Your task to perform on an android device: toggle notifications settings in the gmail app Image 0: 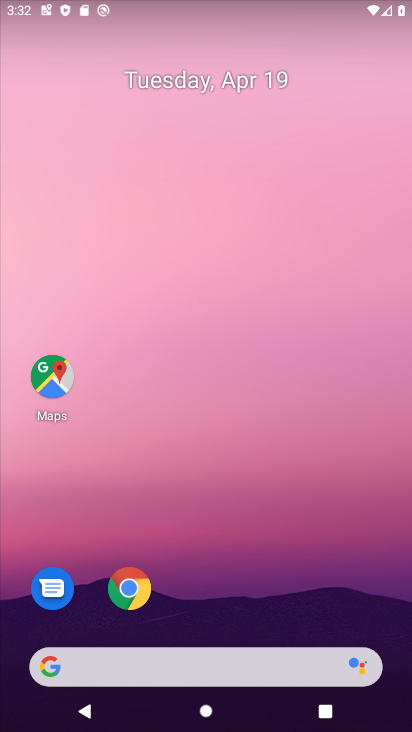
Step 0: drag from (242, 483) to (220, 109)
Your task to perform on an android device: toggle notifications settings in the gmail app Image 1: 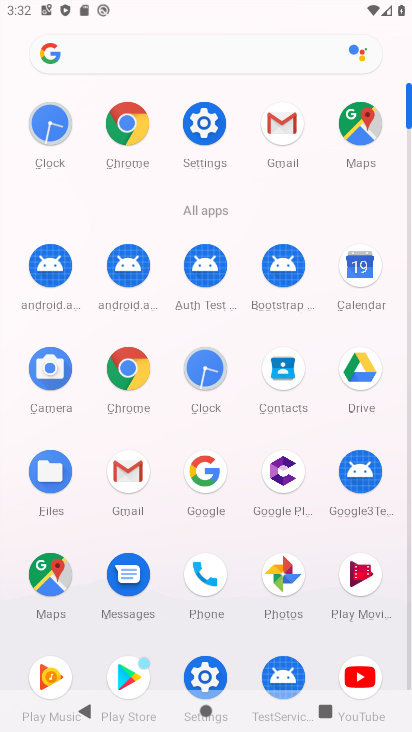
Step 1: click (285, 117)
Your task to perform on an android device: toggle notifications settings in the gmail app Image 2: 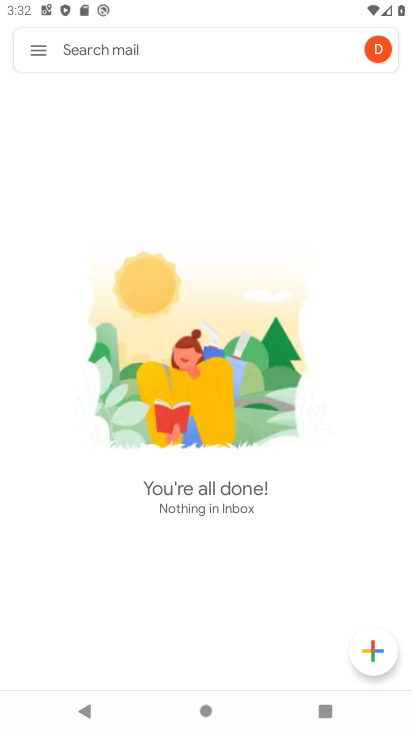
Step 2: click (38, 49)
Your task to perform on an android device: toggle notifications settings in the gmail app Image 3: 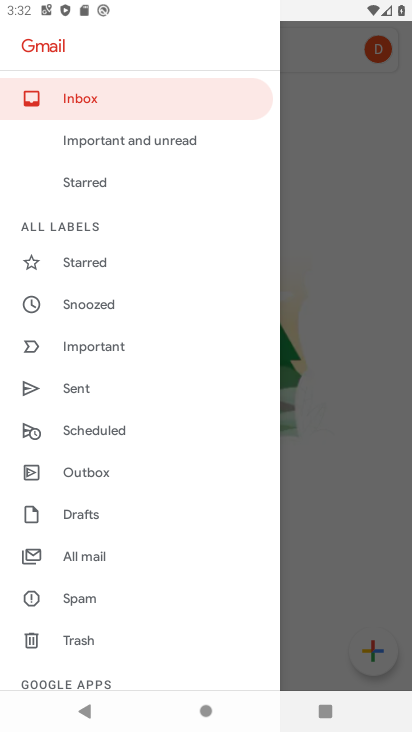
Step 3: drag from (143, 642) to (143, 262)
Your task to perform on an android device: toggle notifications settings in the gmail app Image 4: 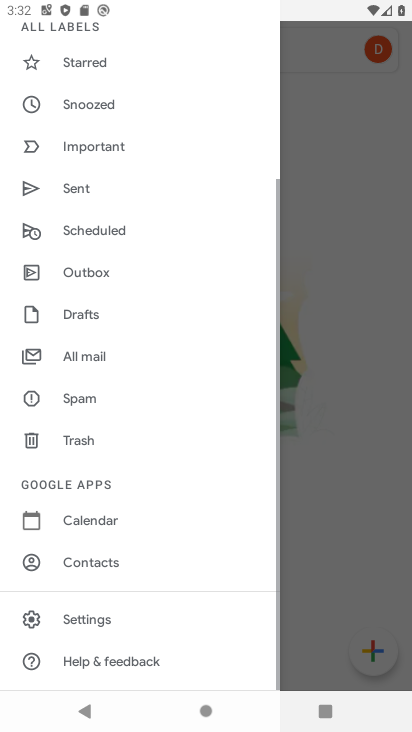
Step 4: click (100, 618)
Your task to perform on an android device: toggle notifications settings in the gmail app Image 5: 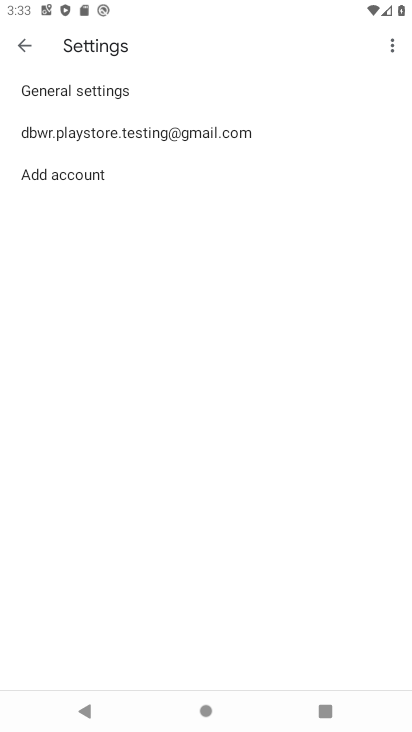
Step 5: click (99, 131)
Your task to perform on an android device: toggle notifications settings in the gmail app Image 6: 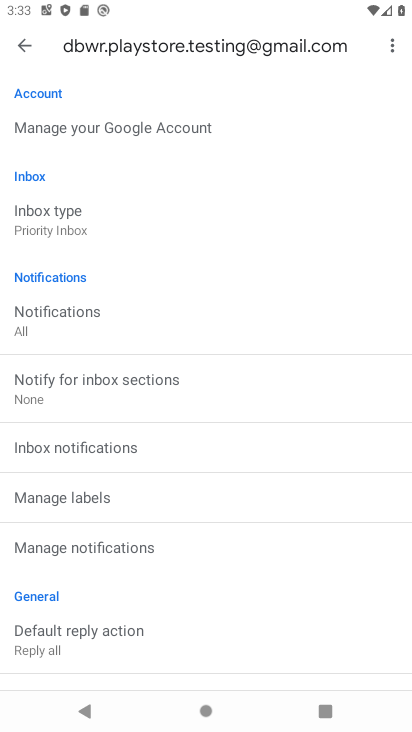
Step 6: click (90, 556)
Your task to perform on an android device: toggle notifications settings in the gmail app Image 7: 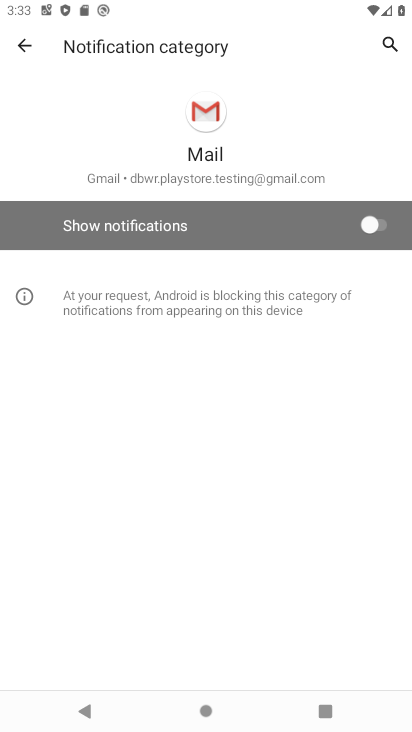
Step 7: click (359, 220)
Your task to perform on an android device: toggle notifications settings in the gmail app Image 8: 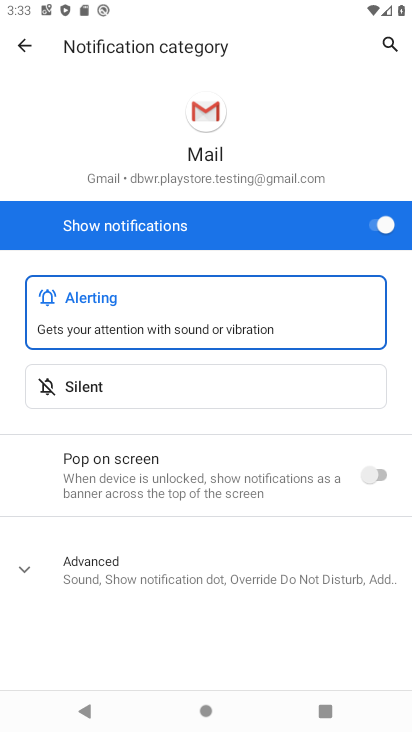
Step 8: task complete